Your task to perform on an android device: delete location history Image 0: 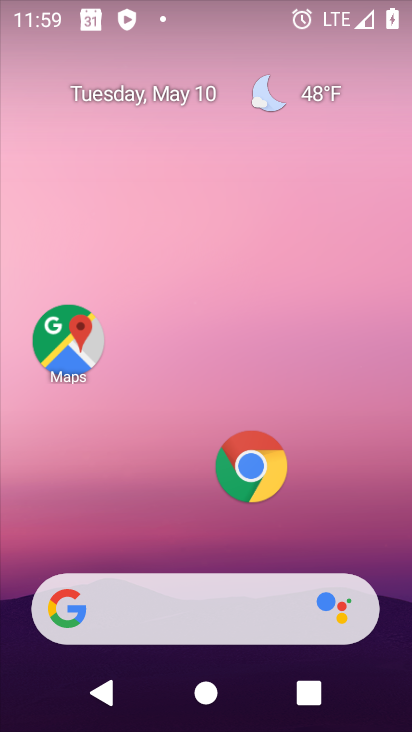
Step 0: click (65, 330)
Your task to perform on an android device: delete location history Image 1: 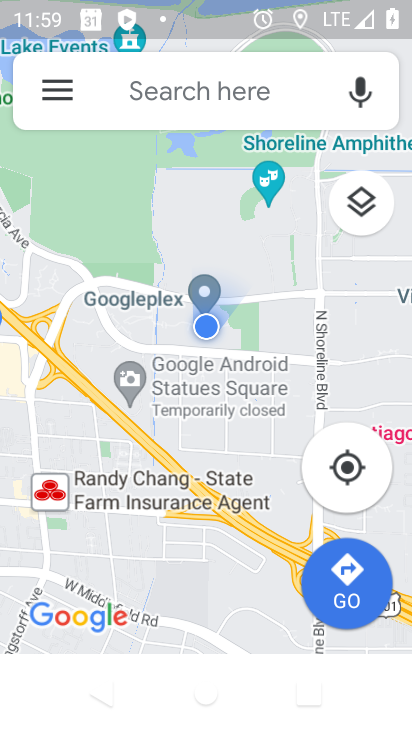
Step 1: click (41, 74)
Your task to perform on an android device: delete location history Image 2: 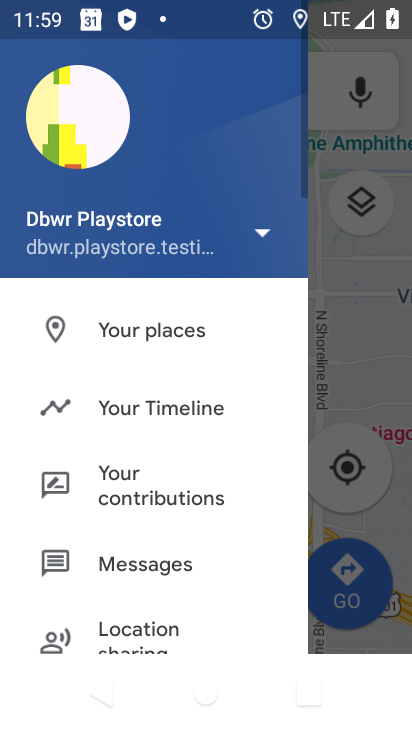
Step 2: click (202, 404)
Your task to perform on an android device: delete location history Image 3: 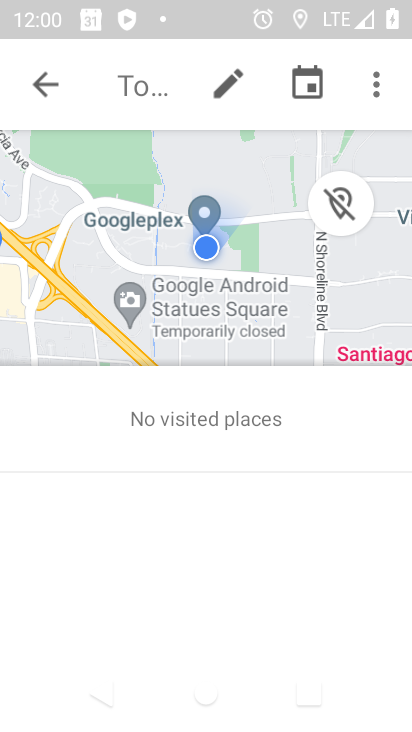
Step 3: click (383, 78)
Your task to perform on an android device: delete location history Image 4: 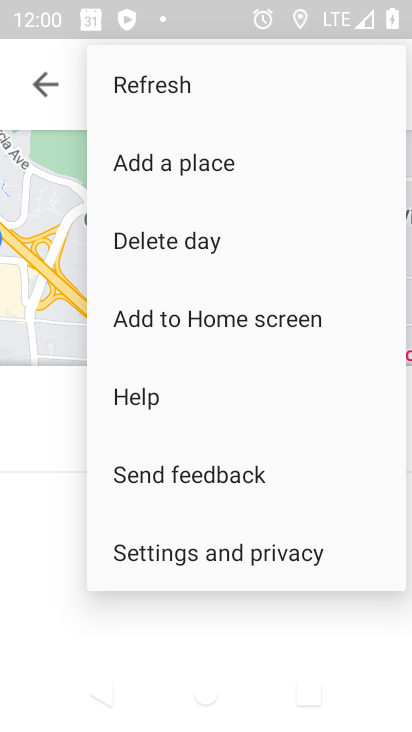
Step 4: click (228, 541)
Your task to perform on an android device: delete location history Image 5: 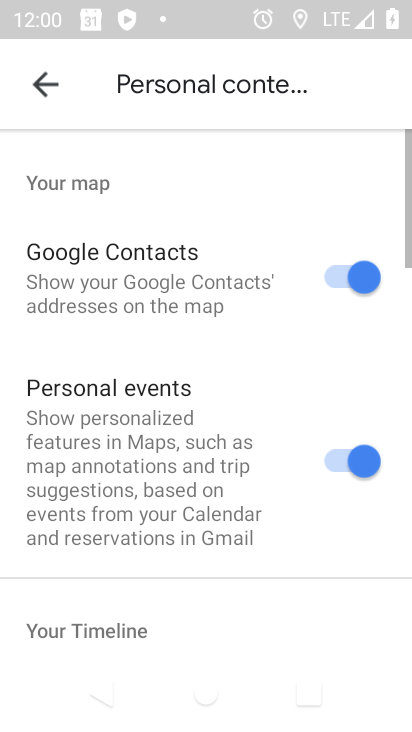
Step 5: drag from (166, 615) to (249, 94)
Your task to perform on an android device: delete location history Image 6: 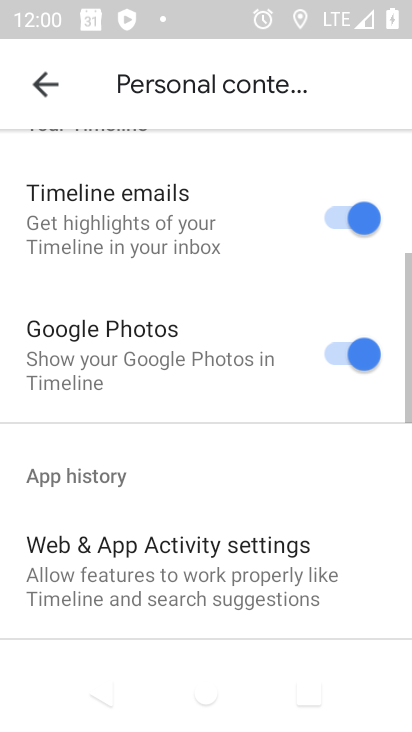
Step 6: drag from (178, 577) to (283, 62)
Your task to perform on an android device: delete location history Image 7: 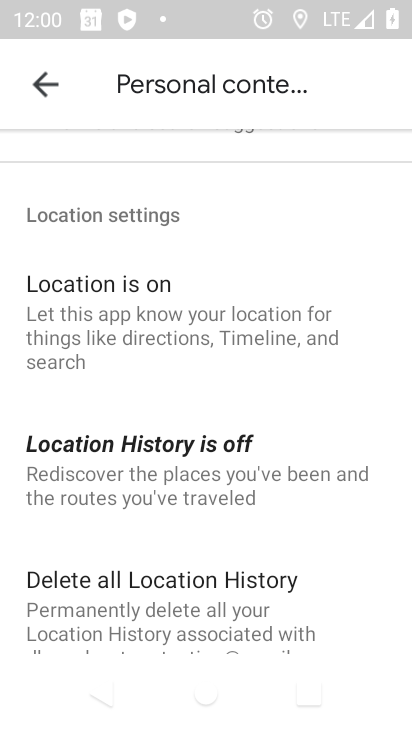
Step 7: click (116, 600)
Your task to perform on an android device: delete location history Image 8: 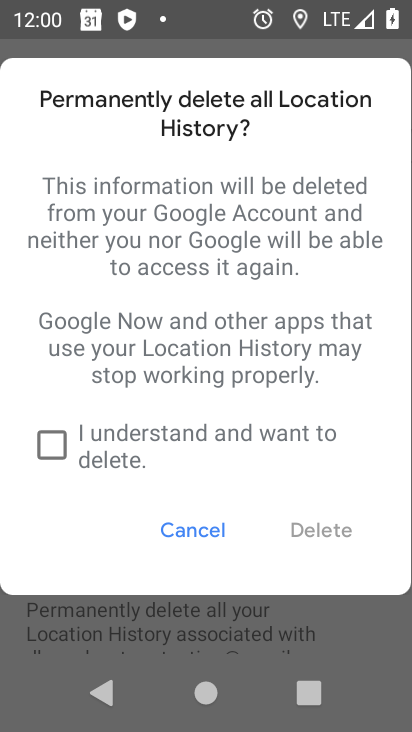
Step 8: click (67, 444)
Your task to perform on an android device: delete location history Image 9: 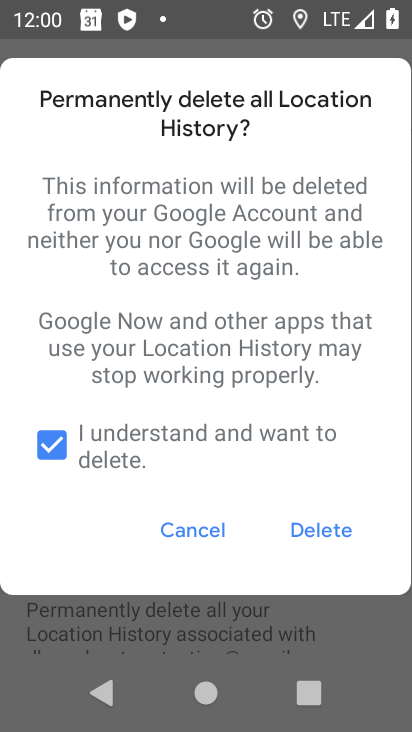
Step 9: click (320, 521)
Your task to perform on an android device: delete location history Image 10: 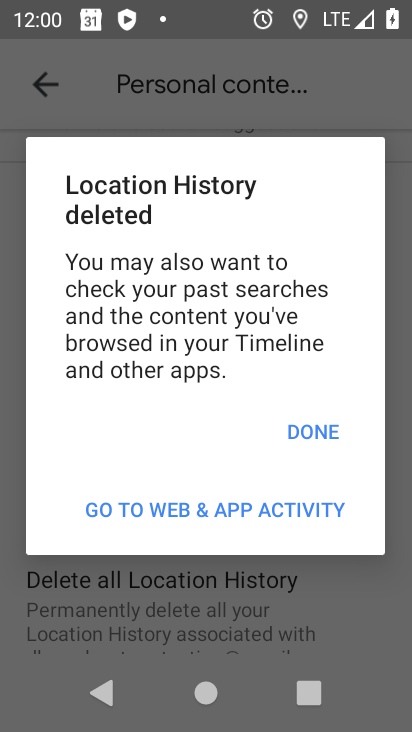
Step 10: click (325, 415)
Your task to perform on an android device: delete location history Image 11: 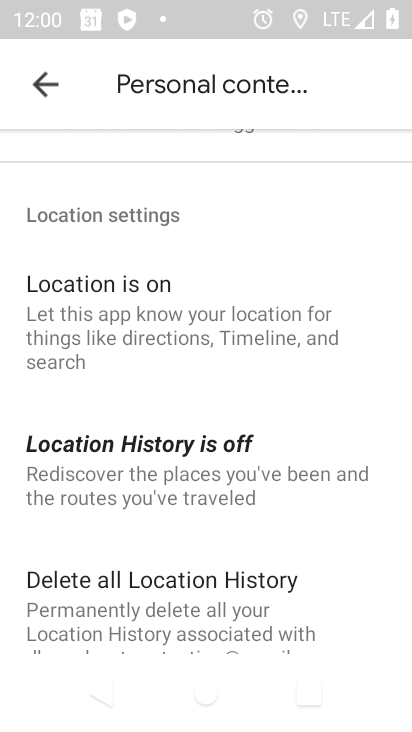
Step 11: task complete